Your task to perform on an android device: Open my contact list Image 0: 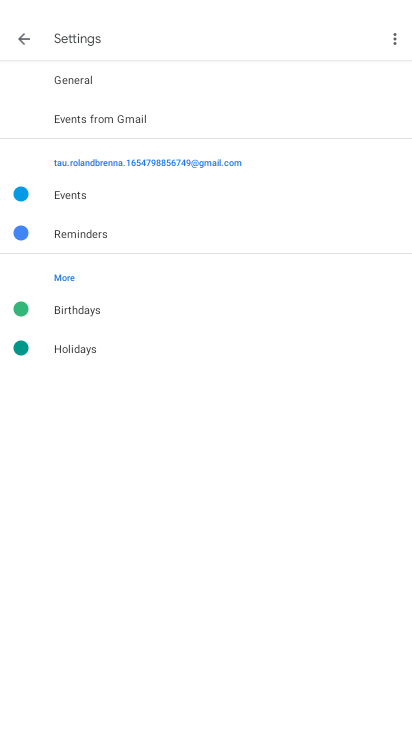
Step 0: press home button
Your task to perform on an android device: Open my contact list Image 1: 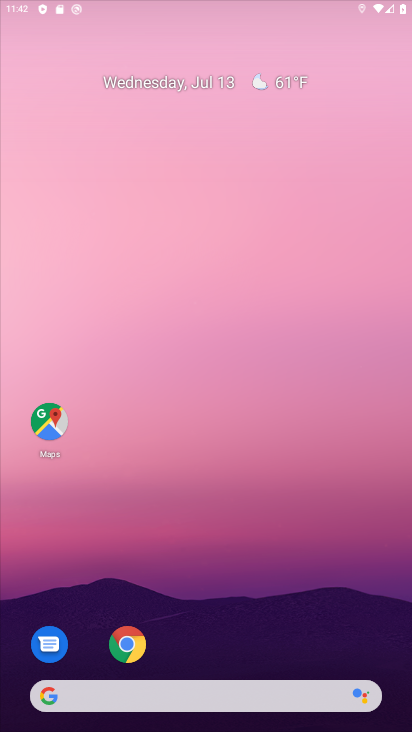
Step 1: drag from (222, 642) to (222, 87)
Your task to perform on an android device: Open my contact list Image 2: 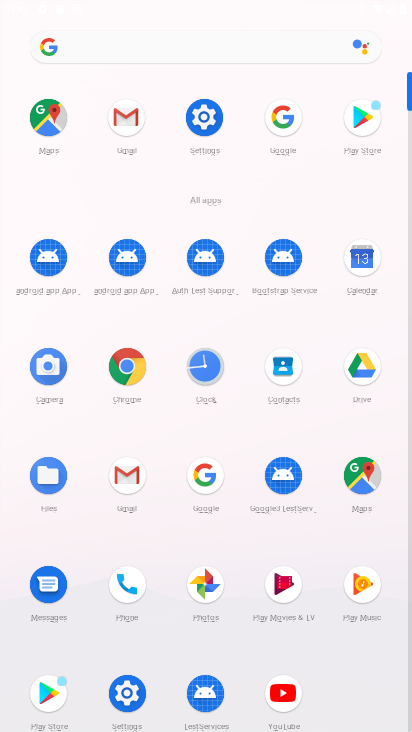
Step 2: click (286, 367)
Your task to perform on an android device: Open my contact list Image 3: 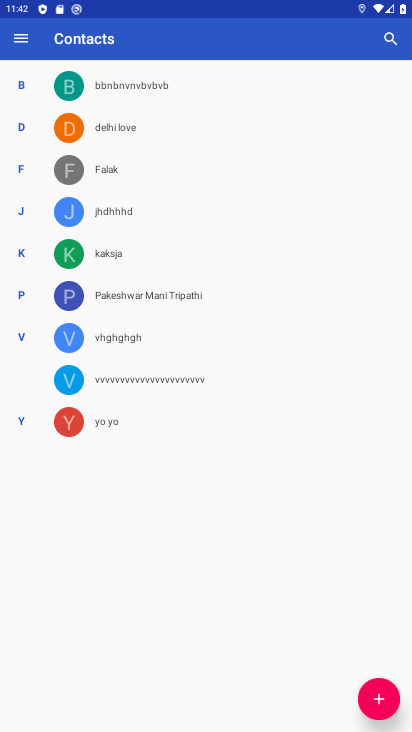
Step 3: task complete